Your task to perform on an android device: add a contact in the contacts app Image 0: 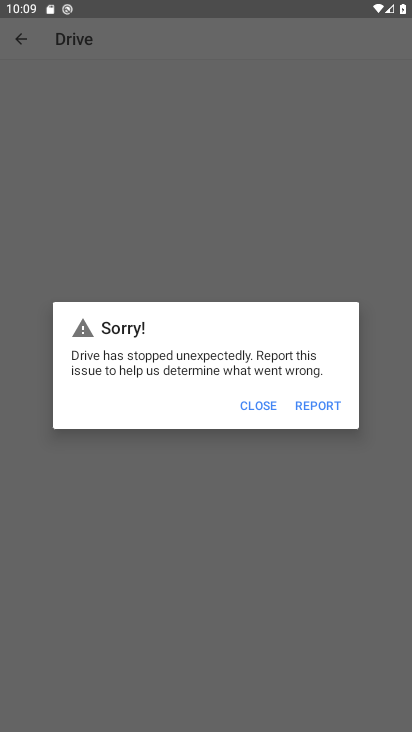
Step 0: press home button
Your task to perform on an android device: add a contact in the contacts app Image 1: 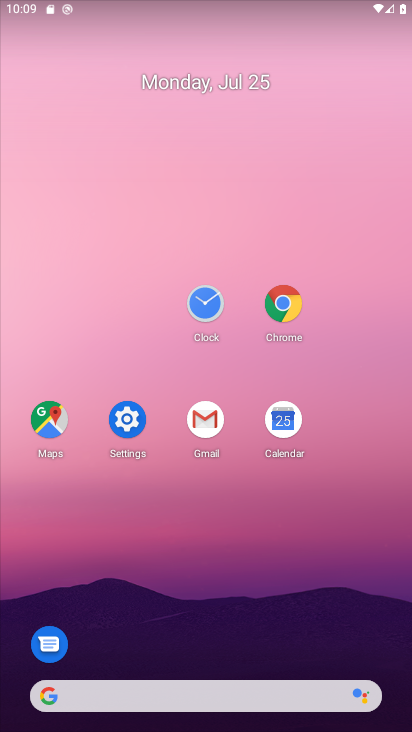
Step 1: drag from (391, 695) to (134, 109)
Your task to perform on an android device: add a contact in the contacts app Image 2: 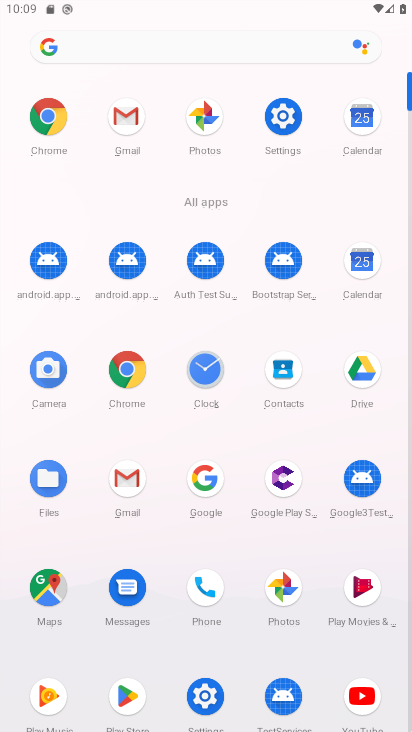
Step 2: click (267, 370)
Your task to perform on an android device: add a contact in the contacts app Image 3: 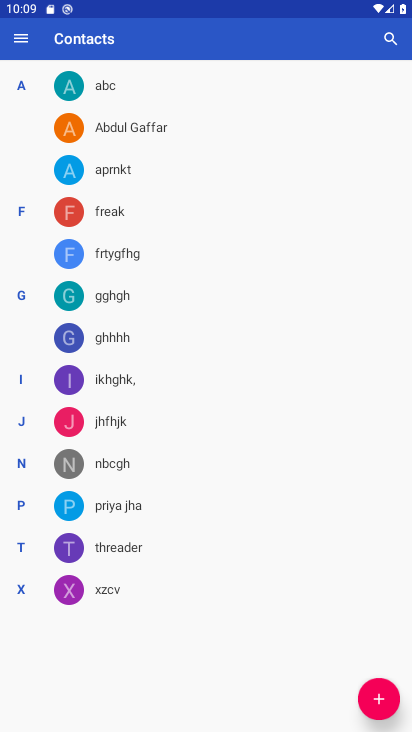
Step 3: click (387, 694)
Your task to perform on an android device: add a contact in the contacts app Image 4: 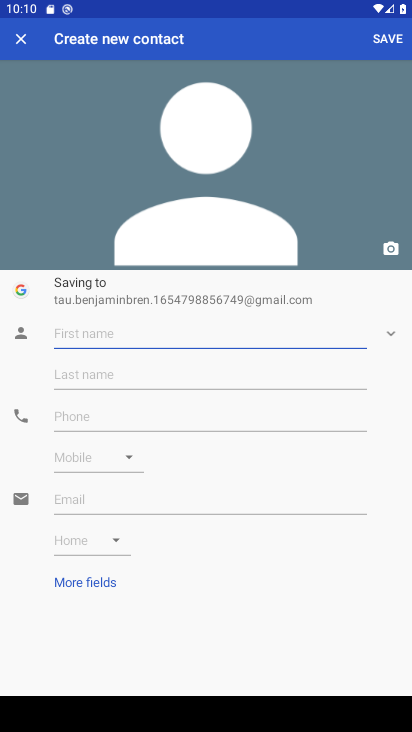
Step 4: type "efwfqeghw"
Your task to perform on an android device: add a contact in the contacts app Image 5: 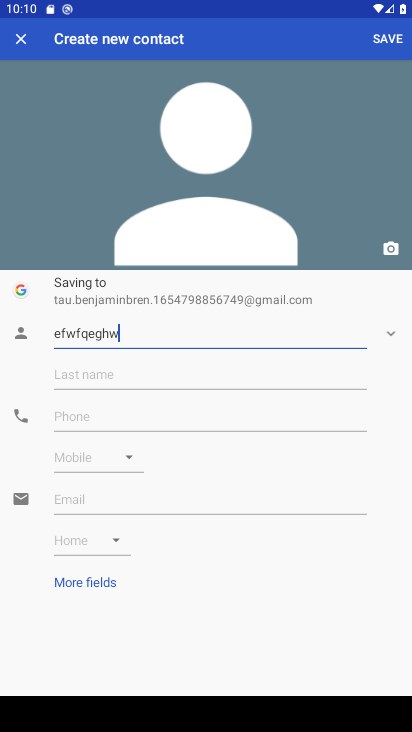
Step 5: click (264, 371)
Your task to perform on an android device: add a contact in the contacts app Image 6: 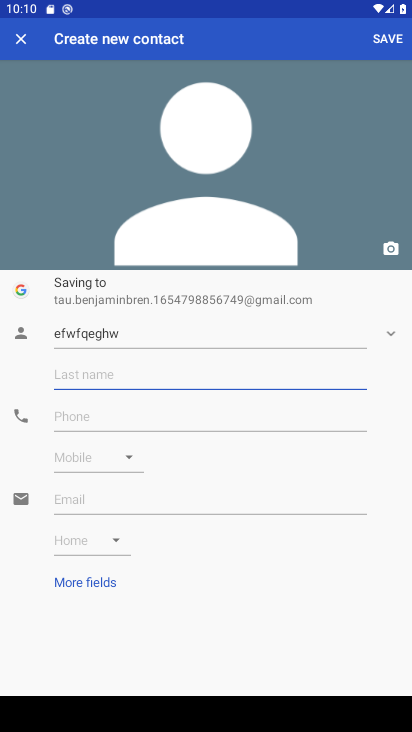
Step 6: type "rcwrfwbryet"
Your task to perform on an android device: add a contact in the contacts app Image 7: 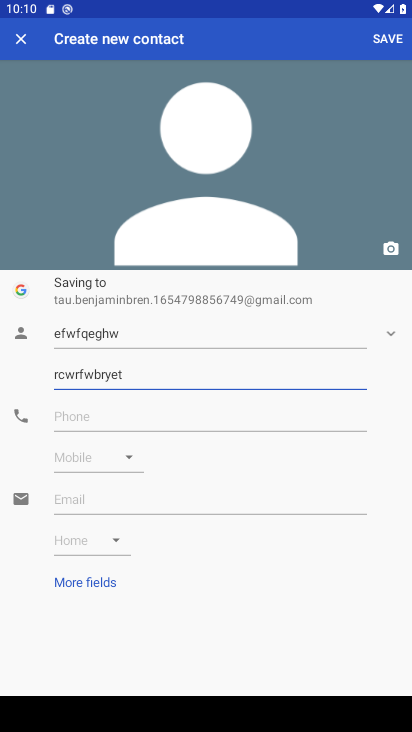
Step 7: click (89, 416)
Your task to perform on an android device: add a contact in the contacts app Image 8: 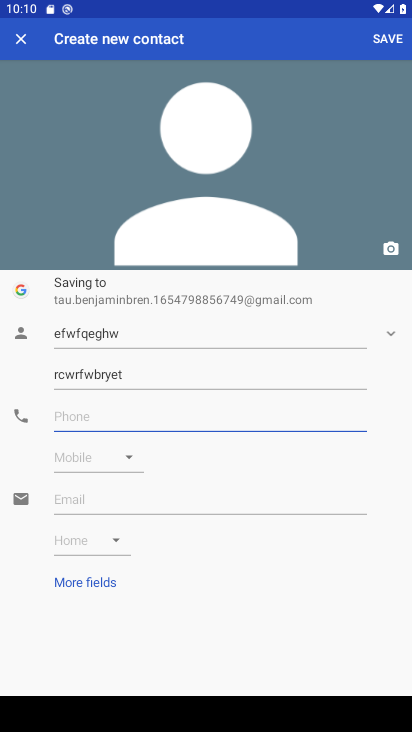
Step 8: type "254545544544554"
Your task to perform on an android device: add a contact in the contacts app Image 9: 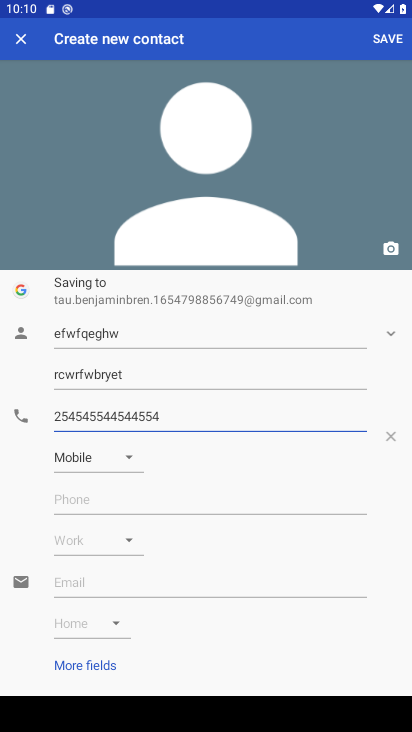
Step 9: click (382, 41)
Your task to perform on an android device: add a contact in the contacts app Image 10: 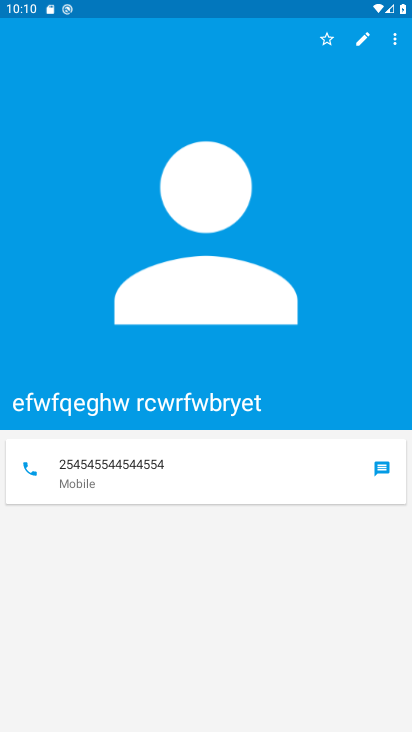
Step 10: task complete